Your task to perform on an android device: set an alarm Image 0: 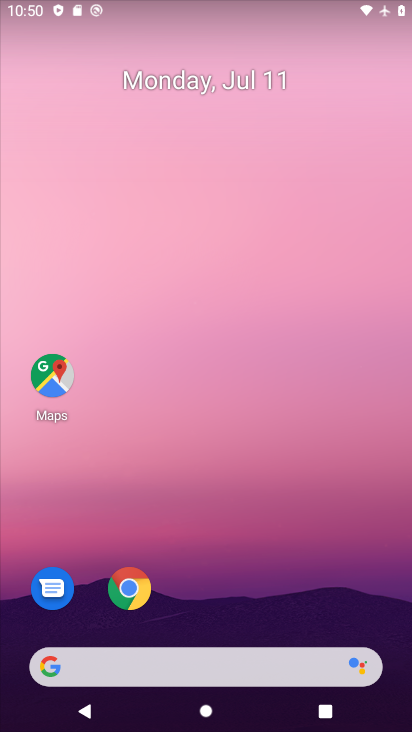
Step 0: press home button
Your task to perform on an android device: set an alarm Image 1: 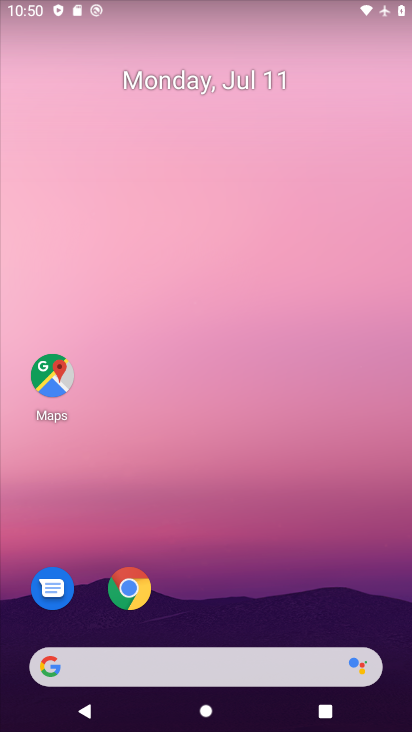
Step 1: drag from (173, 670) to (315, 161)
Your task to perform on an android device: set an alarm Image 2: 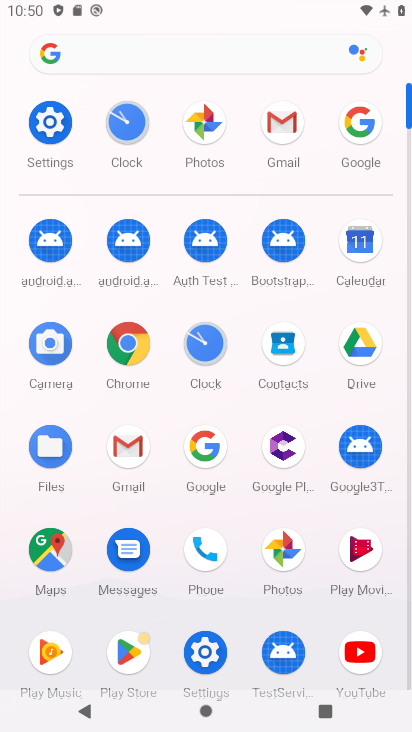
Step 2: click (195, 358)
Your task to perform on an android device: set an alarm Image 3: 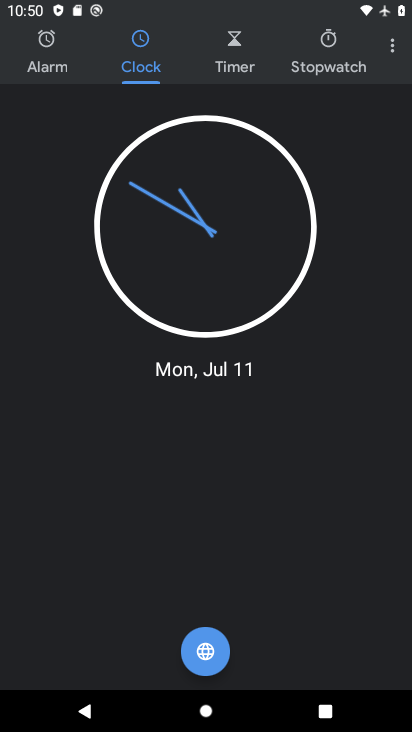
Step 3: click (48, 66)
Your task to perform on an android device: set an alarm Image 4: 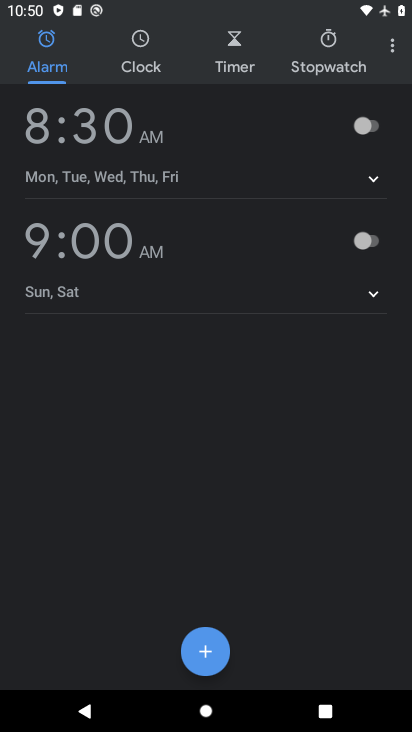
Step 4: click (372, 127)
Your task to perform on an android device: set an alarm Image 5: 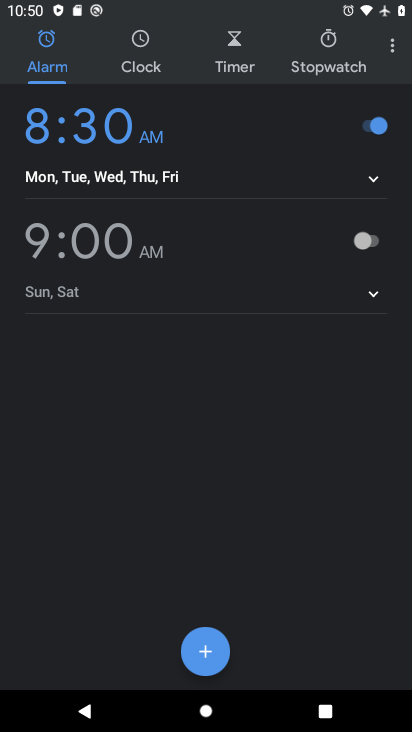
Step 5: task complete